Your task to perform on an android device: Set the phone to "Do not disturb". Image 0: 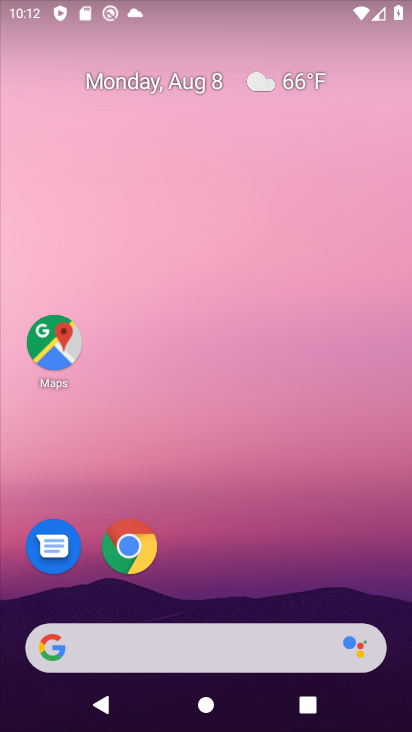
Step 0: drag from (280, 516) to (225, 233)
Your task to perform on an android device: Set the phone to "Do not disturb". Image 1: 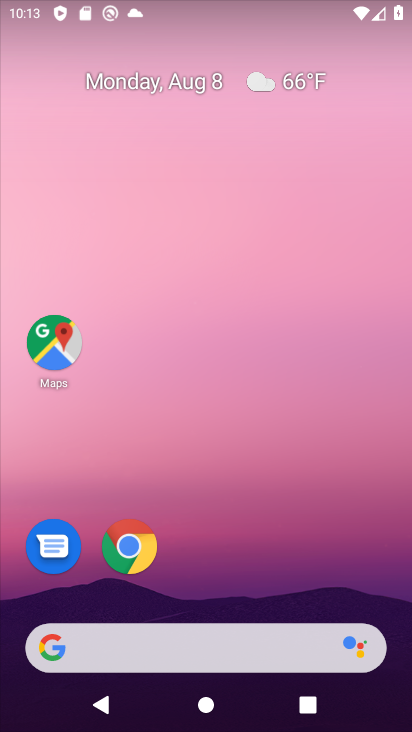
Step 1: drag from (278, 593) to (243, 161)
Your task to perform on an android device: Set the phone to "Do not disturb". Image 2: 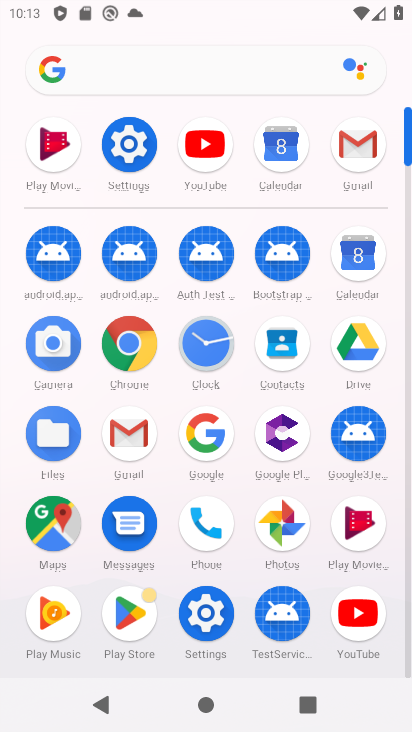
Step 2: drag from (204, 0) to (210, 426)
Your task to perform on an android device: Set the phone to "Do not disturb". Image 3: 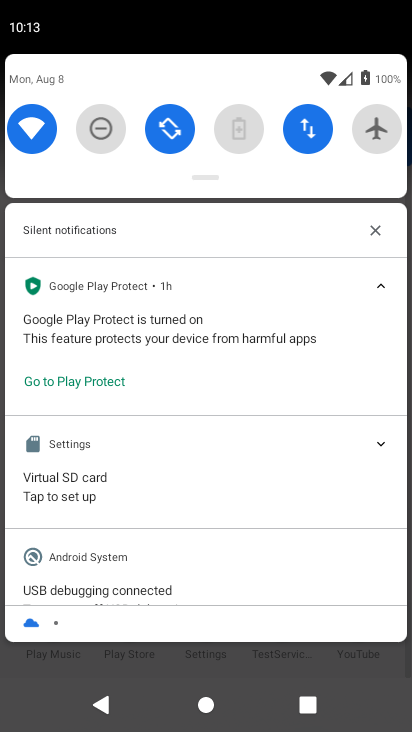
Step 3: click (94, 127)
Your task to perform on an android device: Set the phone to "Do not disturb". Image 4: 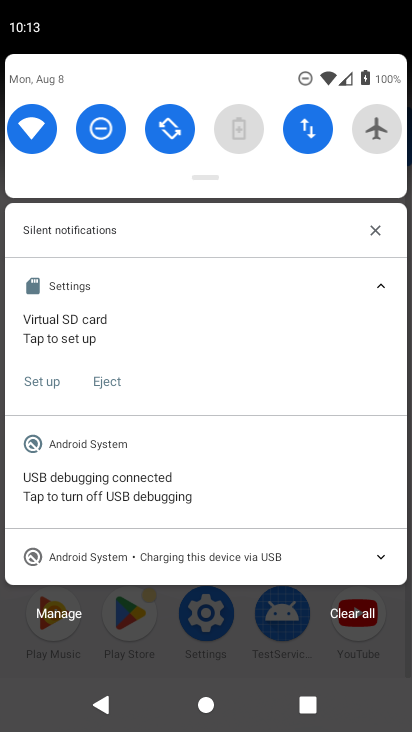
Step 4: task complete